Your task to perform on an android device: Open location settings Image 0: 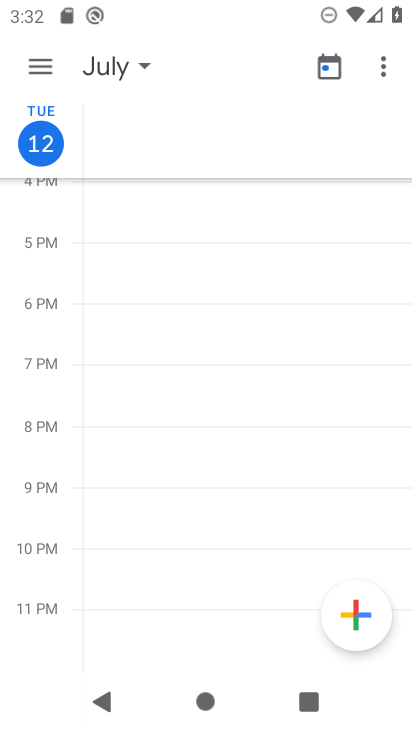
Step 0: press home button
Your task to perform on an android device: Open location settings Image 1: 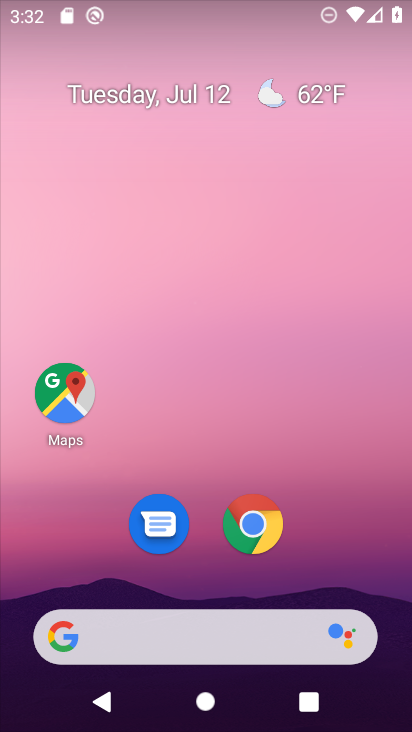
Step 1: drag from (325, 528) to (316, 53)
Your task to perform on an android device: Open location settings Image 2: 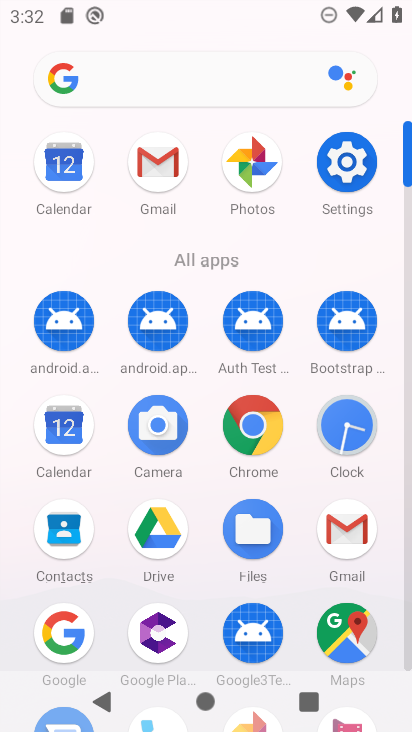
Step 2: click (349, 167)
Your task to perform on an android device: Open location settings Image 3: 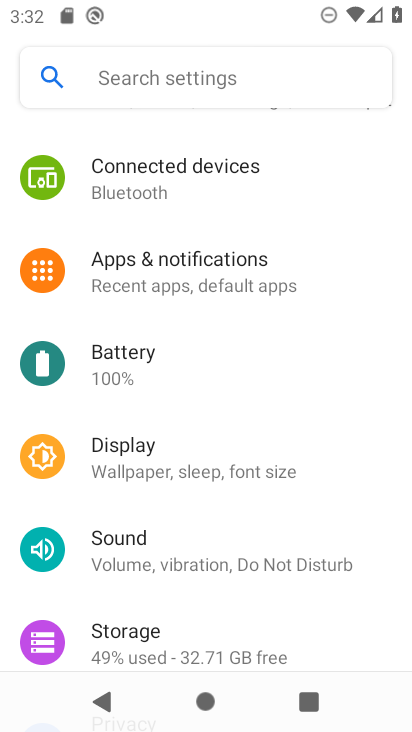
Step 3: drag from (234, 533) to (260, 109)
Your task to perform on an android device: Open location settings Image 4: 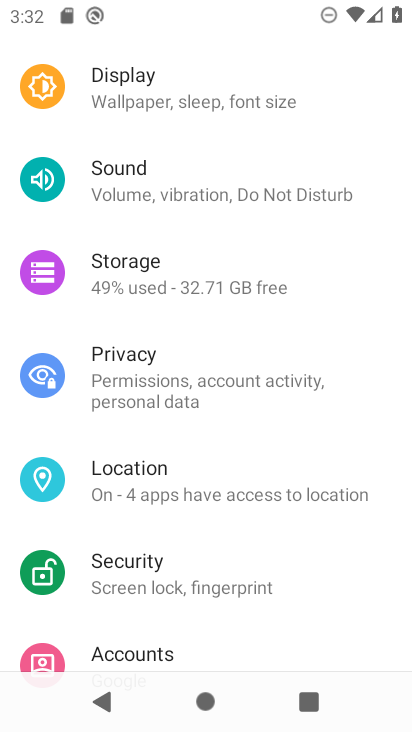
Step 4: click (206, 485)
Your task to perform on an android device: Open location settings Image 5: 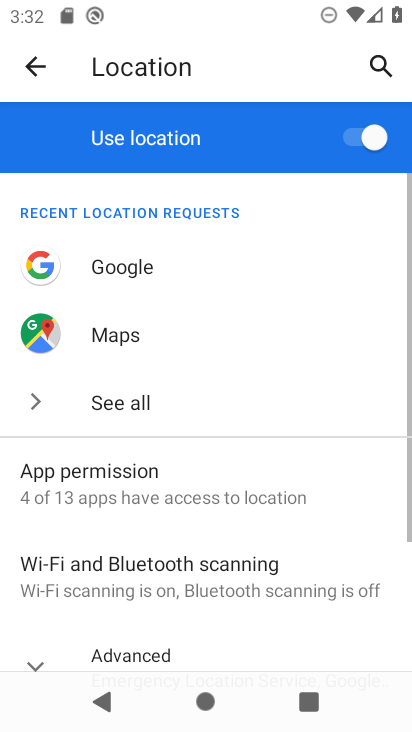
Step 5: task complete